Your task to perform on an android device: Toggle the flashlight Image 0: 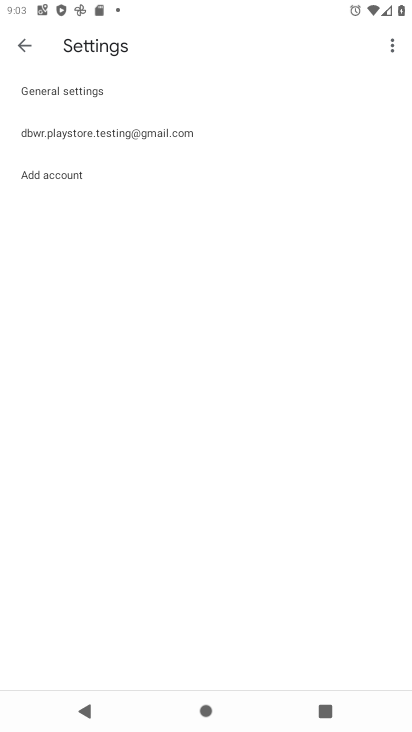
Step 0: press home button
Your task to perform on an android device: Toggle the flashlight Image 1: 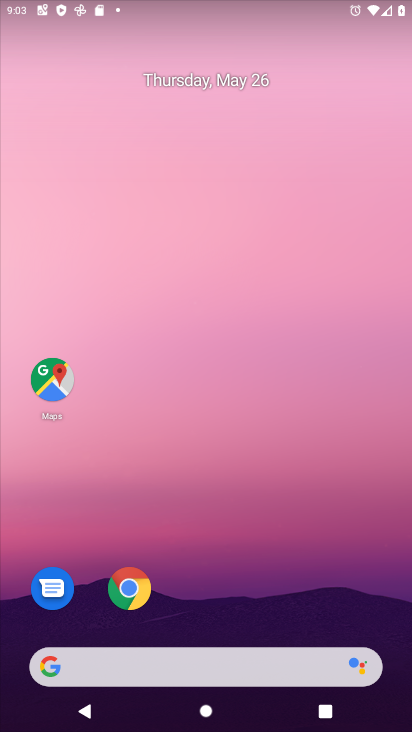
Step 1: drag from (361, 607) to (236, 52)
Your task to perform on an android device: Toggle the flashlight Image 2: 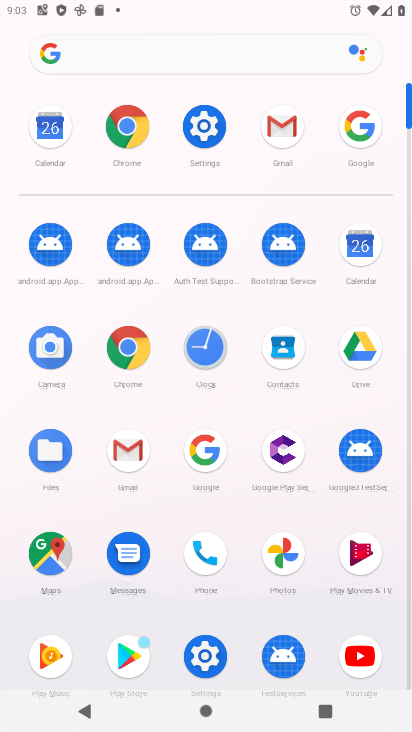
Step 2: click (196, 132)
Your task to perform on an android device: Toggle the flashlight Image 3: 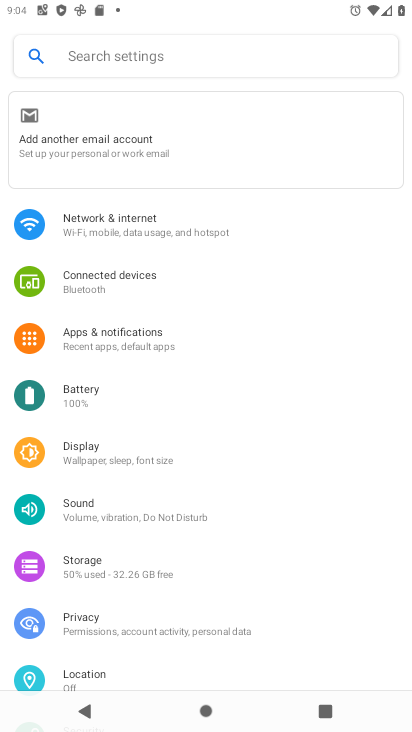
Step 3: task complete